Your task to perform on an android device: Open Wikipedia Image 0: 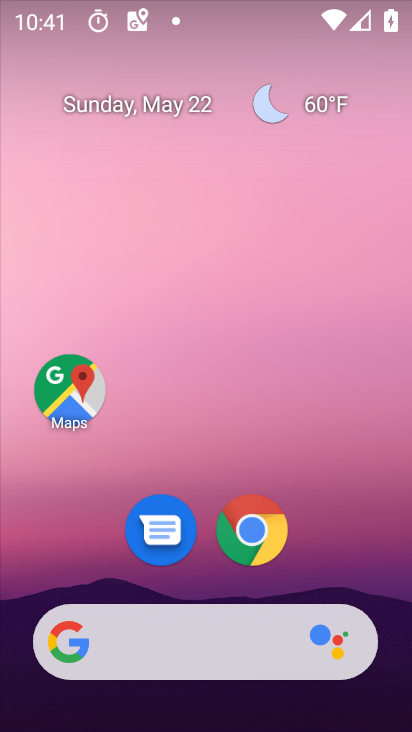
Step 0: click (274, 531)
Your task to perform on an android device: Open Wikipedia Image 1: 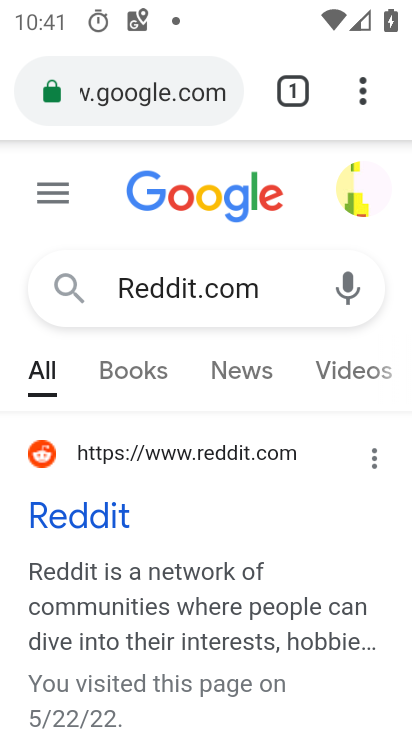
Step 1: click (192, 91)
Your task to perform on an android device: Open Wikipedia Image 2: 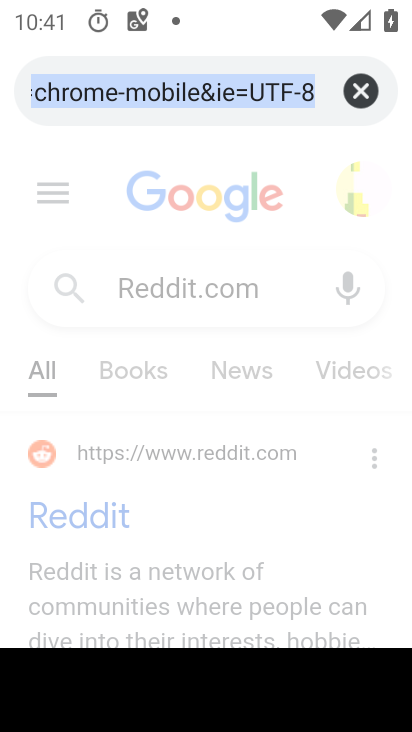
Step 2: click (360, 90)
Your task to perform on an android device: Open Wikipedia Image 3: 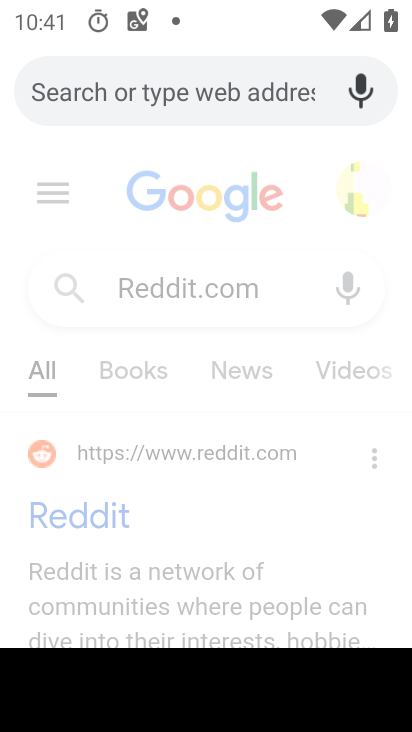
Step 3: click (354, 731)
Your task to perform on an android device: Open Wikipedia Image 4: 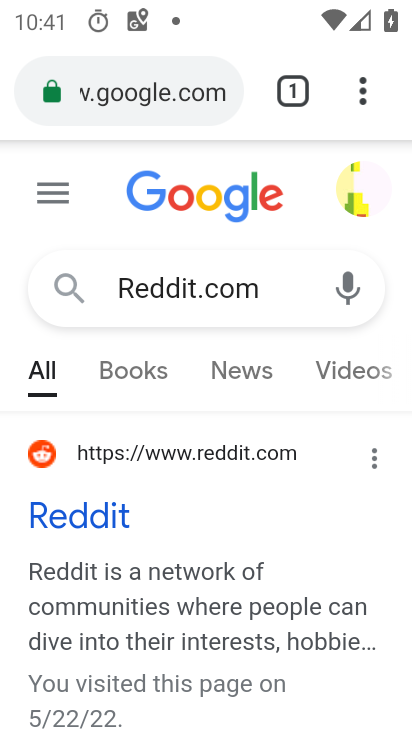
Step 4: type "Wikipedia"
Your task to perform on an android device: Open Wikipedia Image 5: 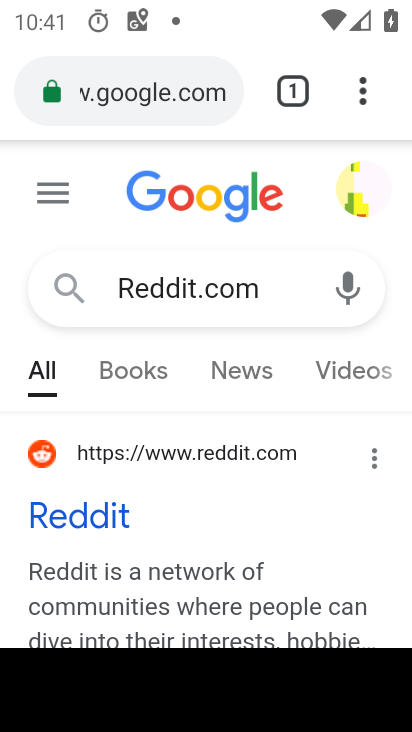
Step 5: click (186, 77)
Your task to perform on an android device: Open Wikipedia Image 6: 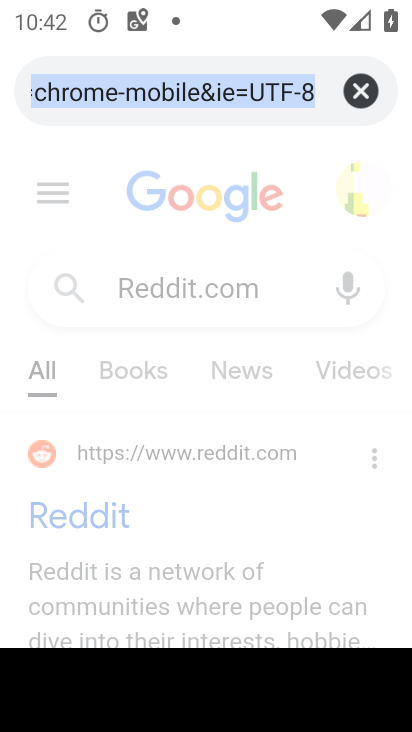
Step 6: click (367, 80)
Your task to perform on an android device: Open Wikipedia Image 7: 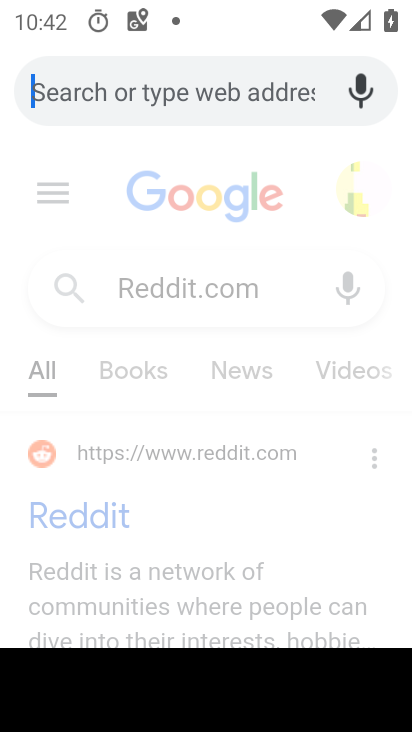
Step 7: click (367, 86)
Your task to perform on an android device: Open Wikipedia Image 8: 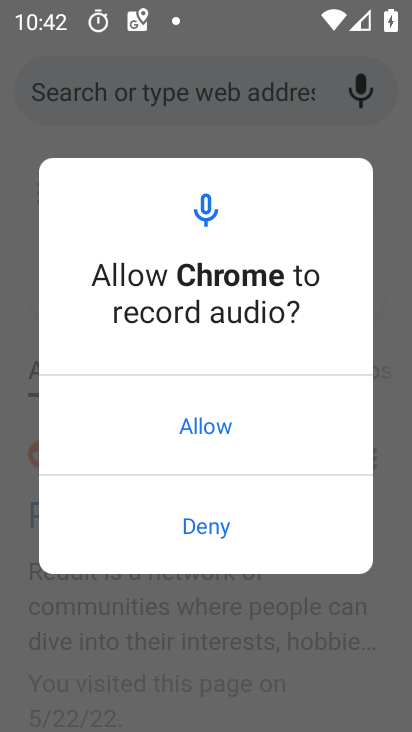
Step 8: click (201, 431)
Your task to perform on an android device: Open Wikipedia Image 9: 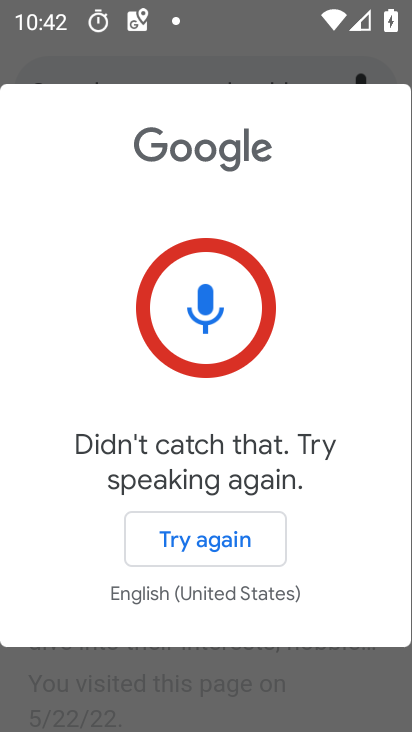
Step 9: press home button
Your task to perform on an android device: Open Wikipedia Image 10: 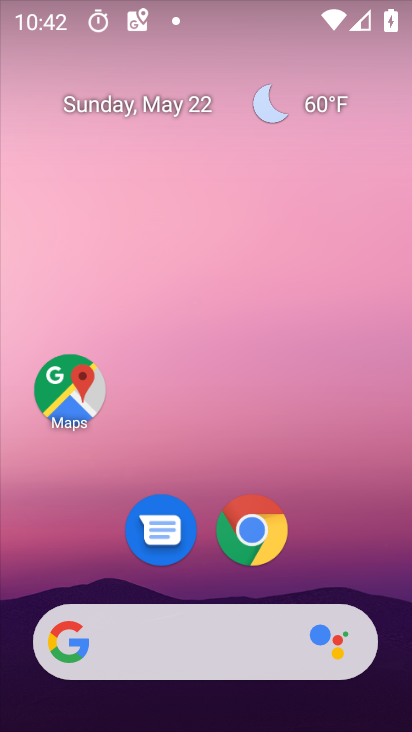
Step 10: drag from (390, 640) to (348, 269)
Your task to perform on an android device: Open Wikipedia Image 11: 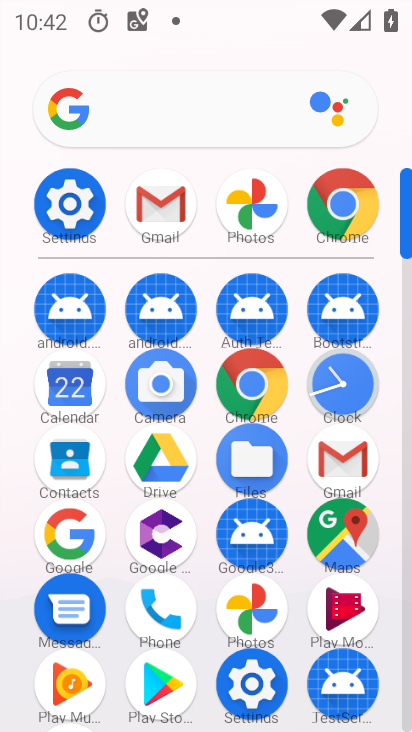
Step 11: click (50, 201)
Your task to perform on an android device: Open Wikipedia Image 12: 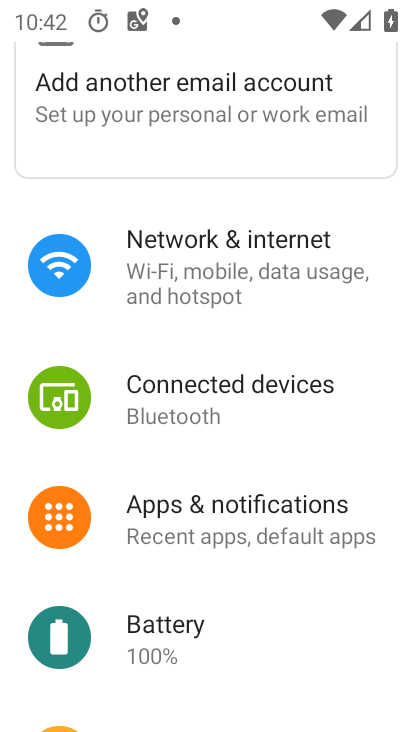
Step 12: press back button
Your task to perform on an android device: Open Wikipedia Image 13: 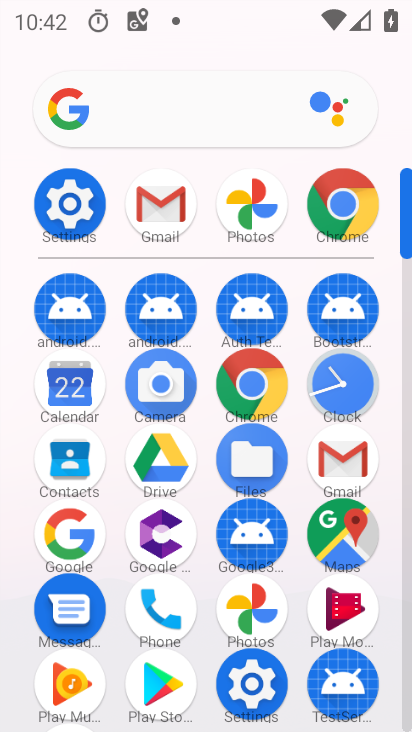
Step 13: click (266, 381)
Your task to perform on an android device: Open Wikipedia Image 14: 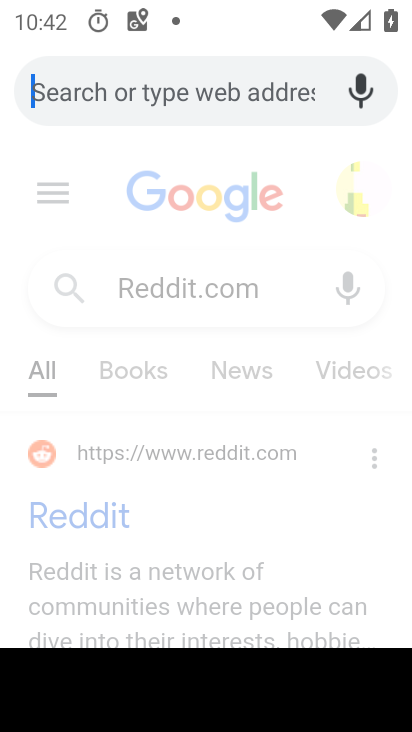
Step 14: type "Wikipedia"
Your task to perform on an android device: Open Wikipedia Image 15: 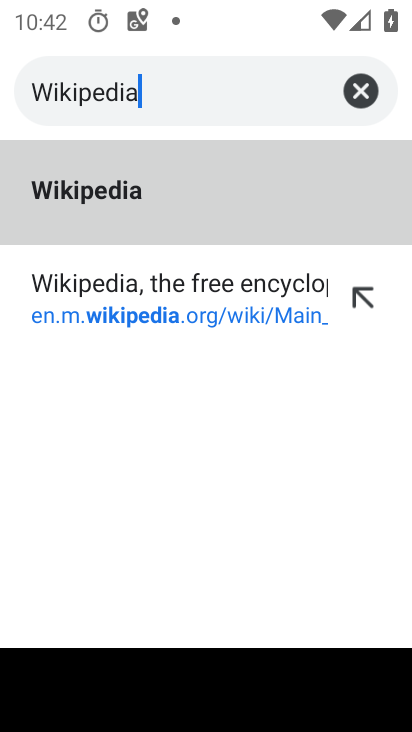
Step 15: click (45, 192)
Your task to perform on an android device: Open Wikipedia Image 16: 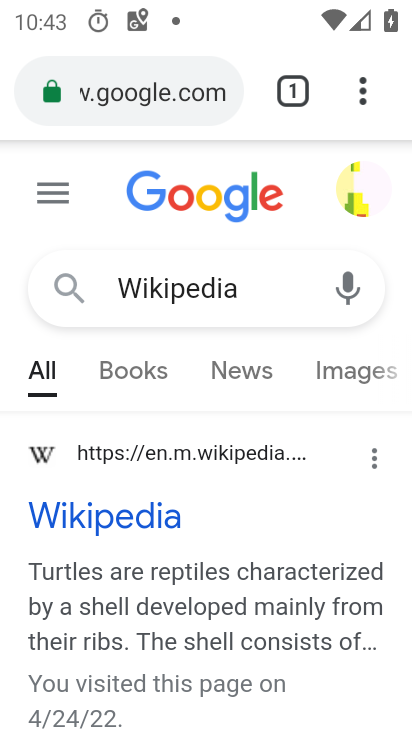
Step 16: task complete